Your task to perform on an android device: Open Wikipedia Image 0: 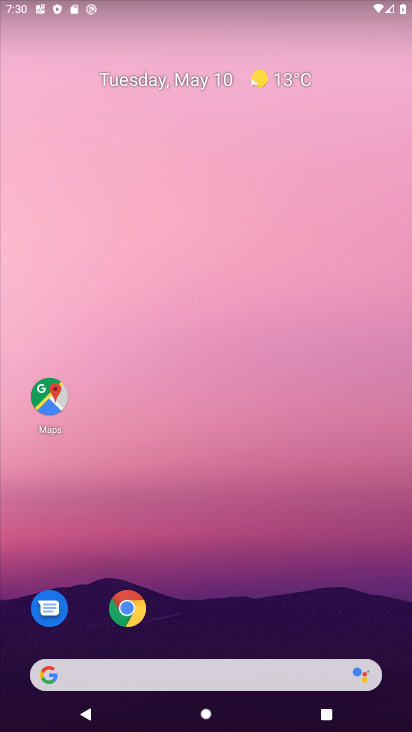
Step 0: click (110, 636)
Your task to perform on an android device: Open Wikipedia Image 1: 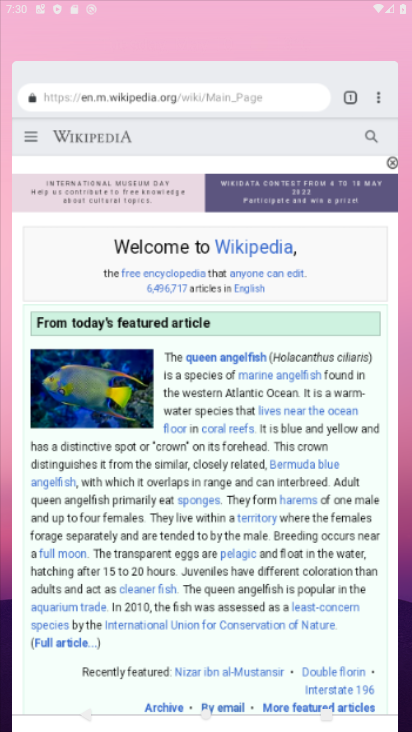
Step 1: click (118, 629)
Your task to perform on an android device: Open Wikipedia Image 2: 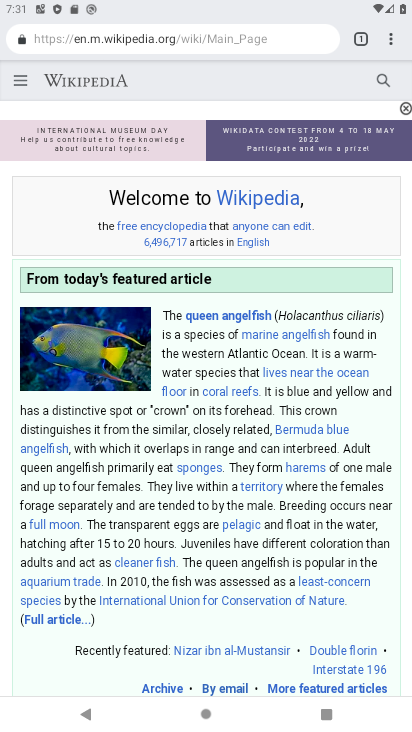
Step 2: task complete